Your task to perform on an android device: manage bookmarks in the chrome app Image 0: 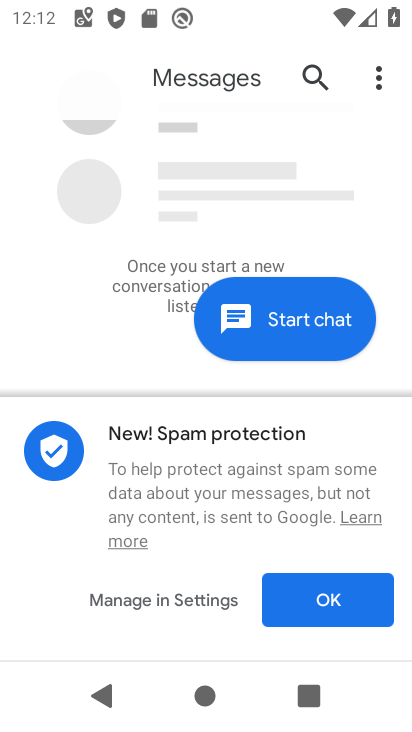
Step 0: drag from (173, 580) to (217, 281)
Your task to perform on an android device: manage bookmarks in the chrome app Image 1: 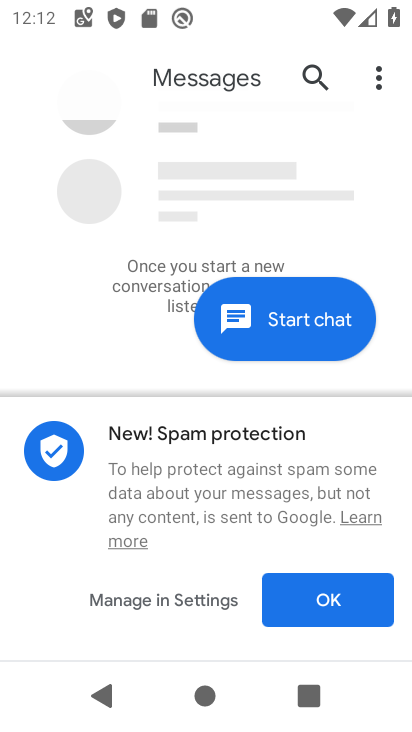
Step 1: press back button
Your task to perform on an android device: manage bookmarks in the chrome app Image 2: 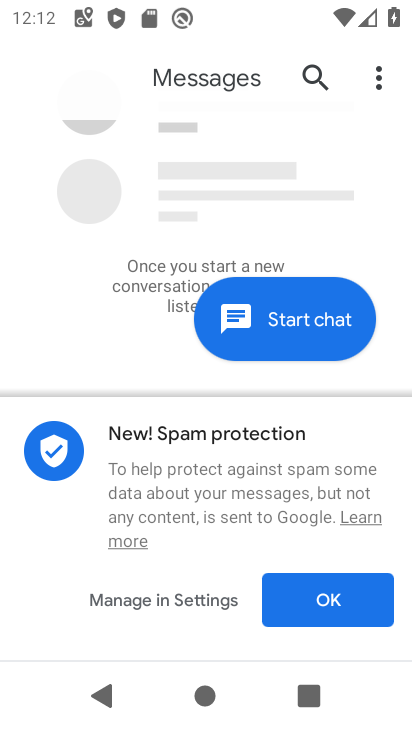
Step 2: press back button
Your task to perform on an android device: manage bookmarks in the chrome app Image 3: 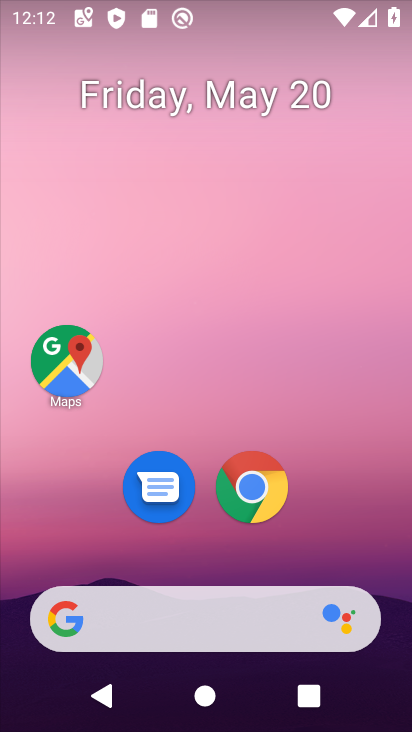
Step 3: click (248, 484)
Your task to perform on an android device: manage bookmarks in the chrome app Image 4: 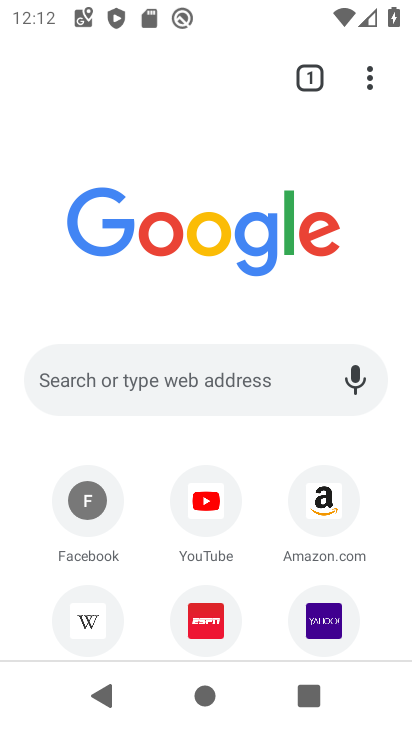
Step 4: drag from (372, 76) to (118, 304)
Your task to perform on an android device: manage bookmarks in the chrome app Image 5: 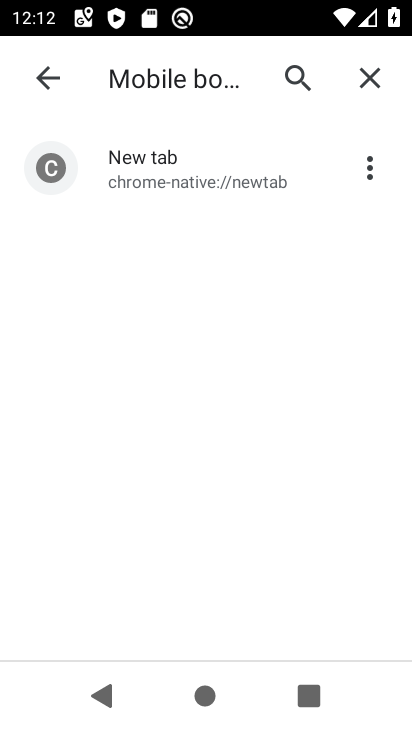
Step 5: click (371, 168)
Your task to perform on an android device: manage bookmarks in the chrome app Image 6: 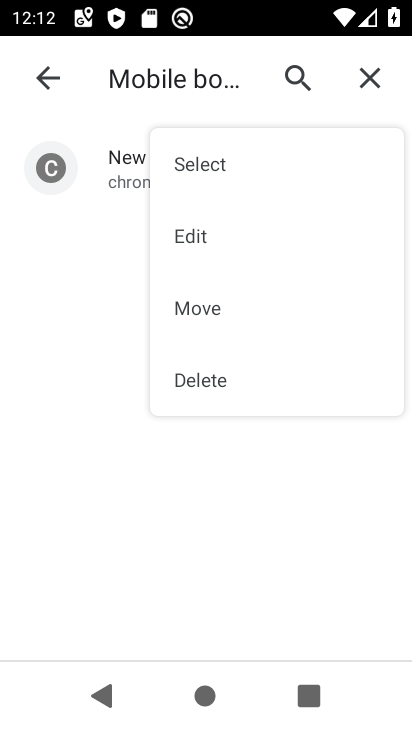
Step 6: click (236, 383)
Your task to perform on an android device: manage bookmarks in the chrome app Image 7: 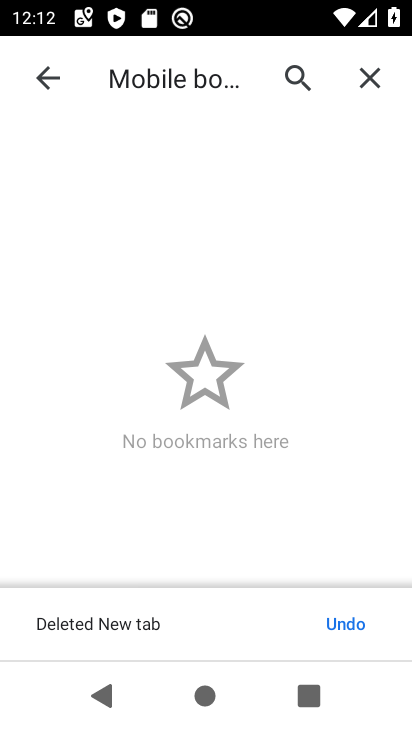
Step 7: task complete